Your task to perform on an android device: change notifications settings Image 0: 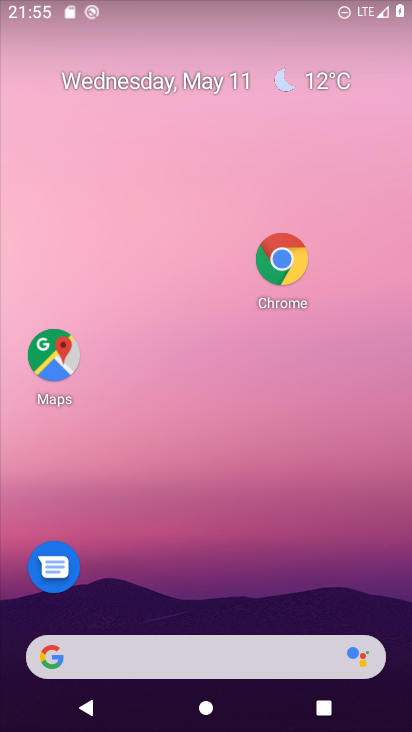
Step 0: drag from (181, 629) to (333, 133)
Your task to perform on an android device: change notifications settings Image 1: 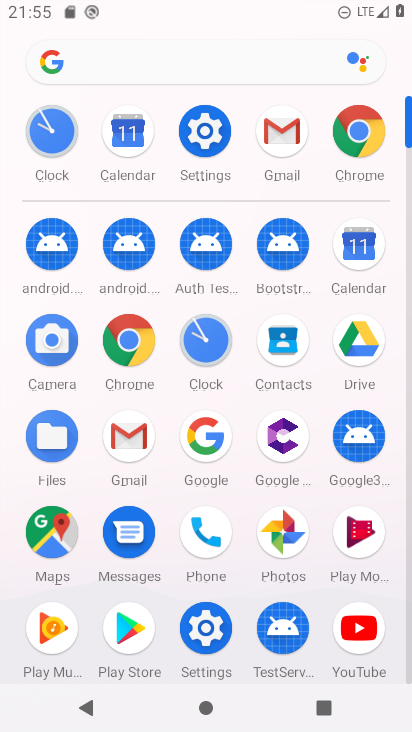
Step 1: click (205, 137)
Your task to perform on an android device: change notifications settings Image 2: 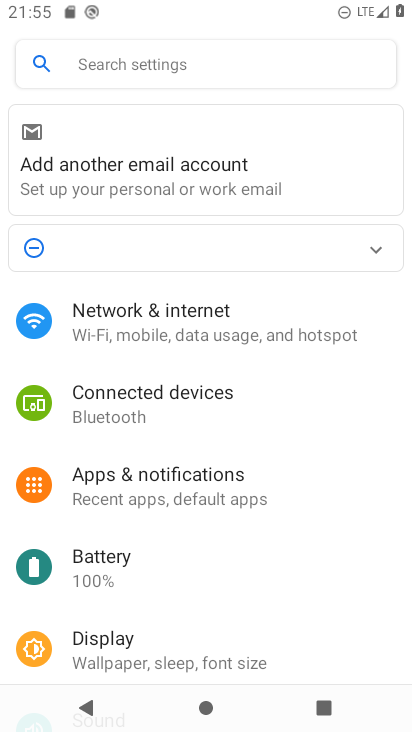
Step 2: click (217, 455)
Your task to perform on an android device: change notifications settings Image 3: 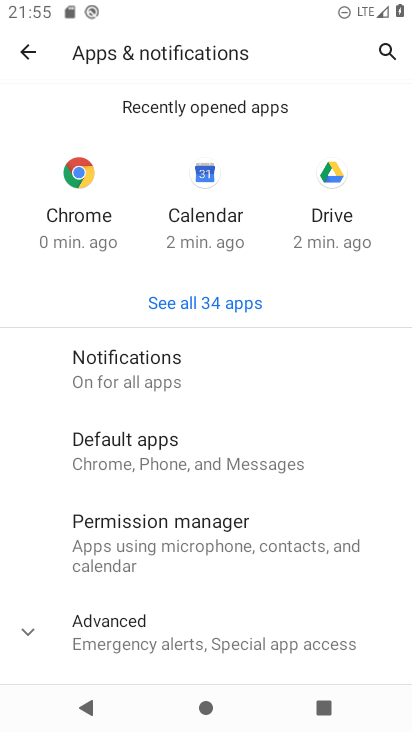
Step 3: click (145, 375)
Your task to perform on an android device: change notifications settings Image 4: 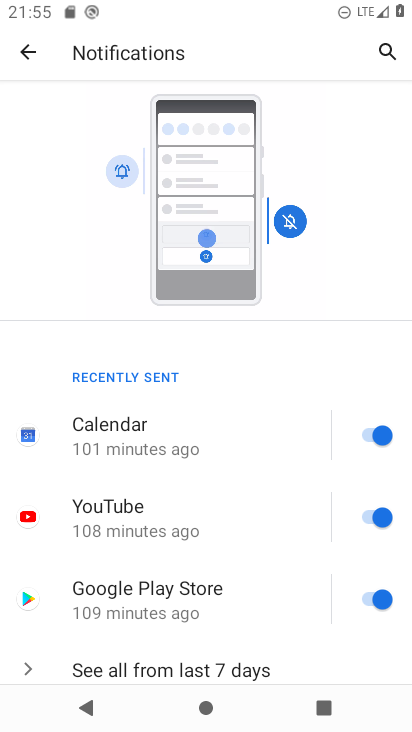
Step 4: click (367, 520)
Your task to perform on an android device: change notifications settings Image 5: 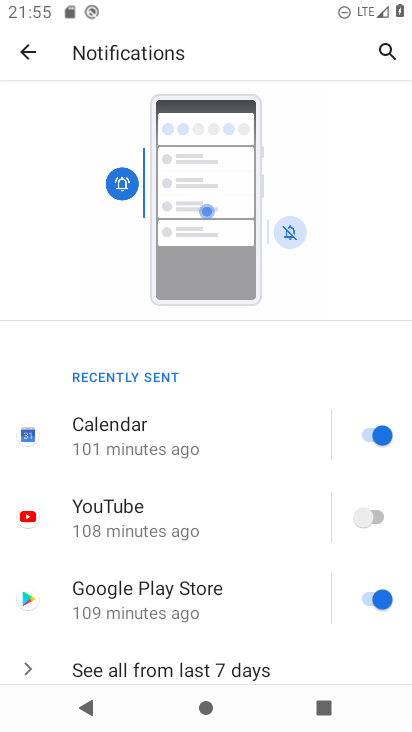
Step 5: task complete